Your task to perform on an android device: turn smart compose on in the gmail app Image 0: 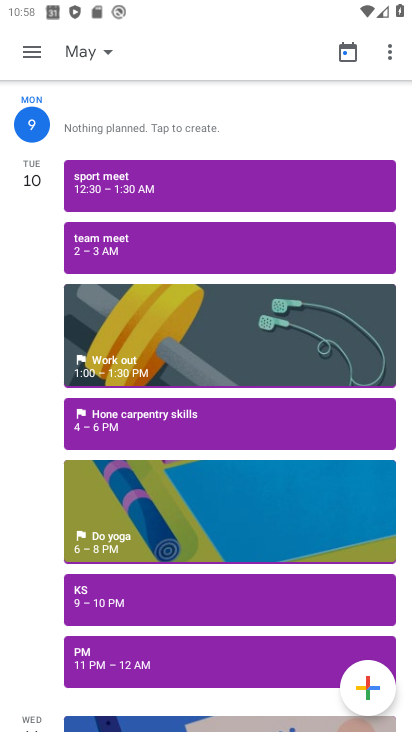
Step 0: press home button
Your task to perform on an android device: turn smart compose on in the gmail app Image 1: 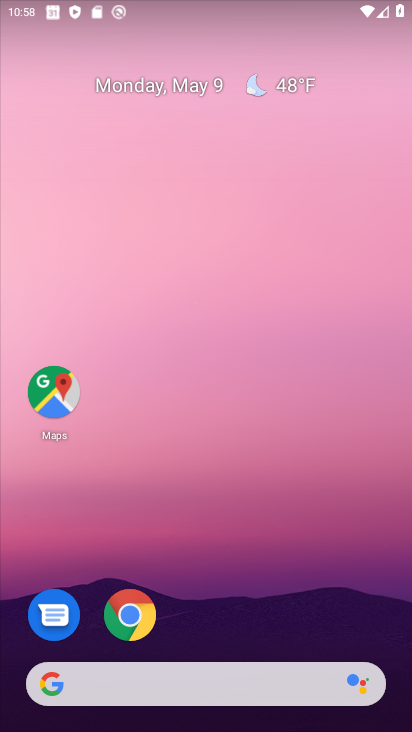
Step 1: drag from (228, 498) to (234, 149)
Your task to perform on an android device: turn smart compose on in the gmail app Image 2: 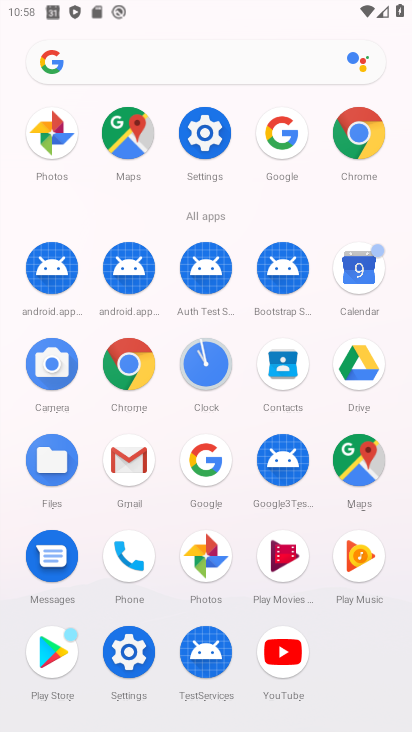
Step 2: click (122, 450)
Your task to perform on an android device: turn smart compose on in the gmail app Image 3: 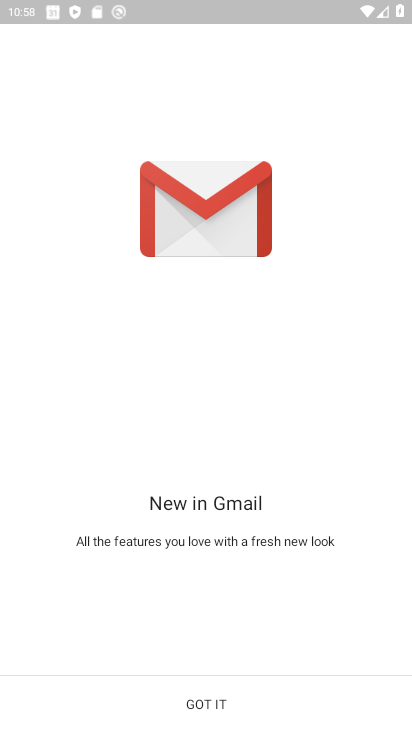
Step 3: click (208, 695)
Your task to perform on an android device: turn smart compose on in the gmail app Image 4: 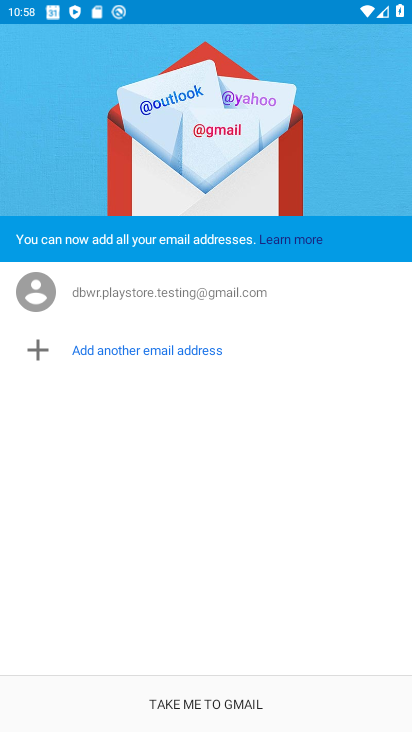
Step 4: click (183, 715)
Your task to perform on an android device: turn smart compose on in the gmail app Image 5: 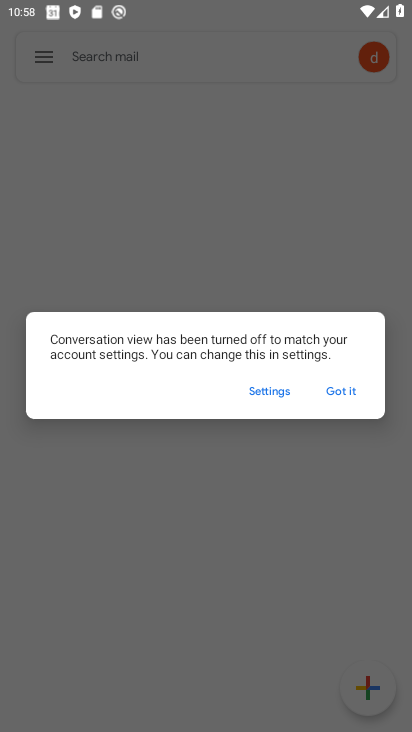
Step 5: click (336, 388)
Your task to perform on an android device: turn smart compose on in the gmail app Image 6: 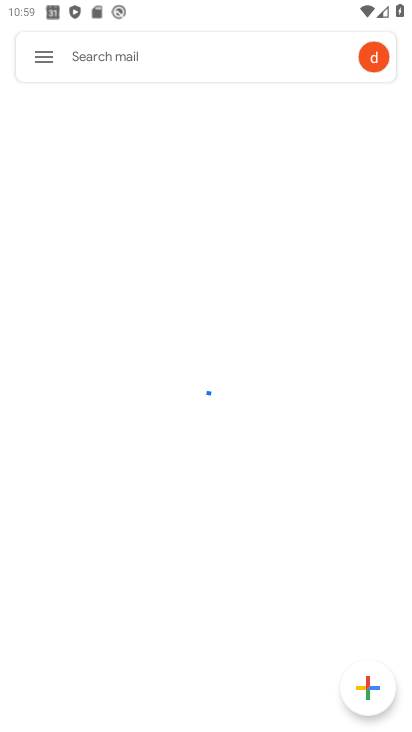
Step 6: click (43, 50)
Your task to perform on an android device: turn smart compose on in the gmail app Image 7: 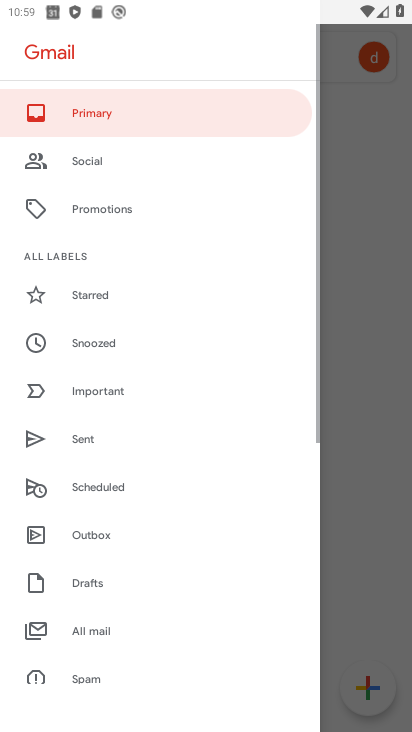
Step 7: drag from (151, 482) to (148, 174)
Your task to perform on an android device: turn smart compose on in the gmail app Image 8: 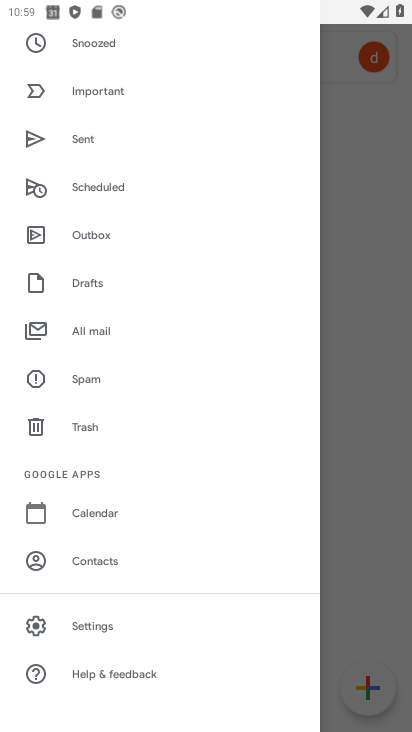
Step 8: click (100, 628)
Your task to perform on an android device: turn smart compose on in the gmail app Image 9: 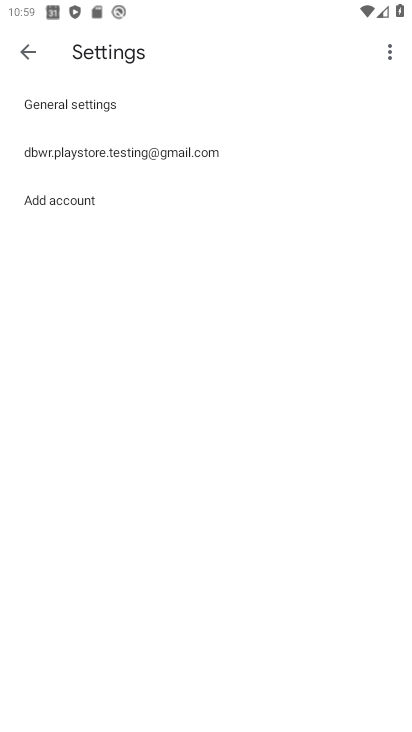
Step 9: click (147, 158)
Your task to perform on an android device: turn smart compose on in the gmail app Image 10: 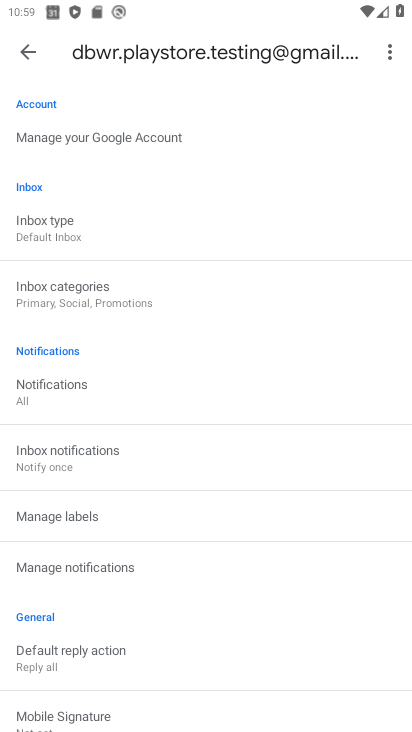
Step 10: task complete